Your task to perform on an android device: What's the weather going to be this weekend? Image 0: 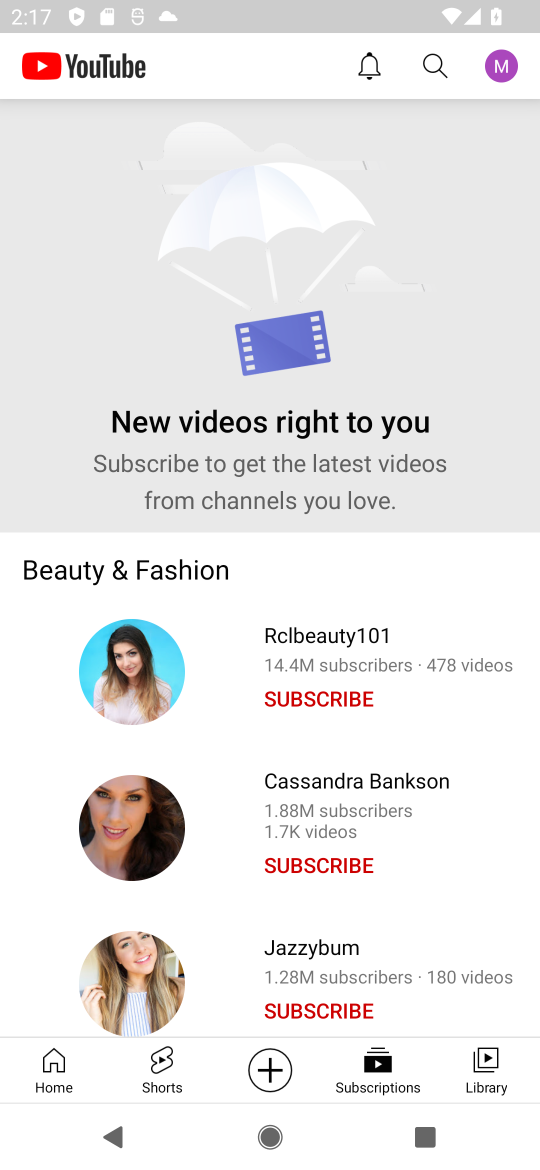
Step 0: press home button
Your task to perform on an android device: What's the weather going to be this weekend? Image 1: 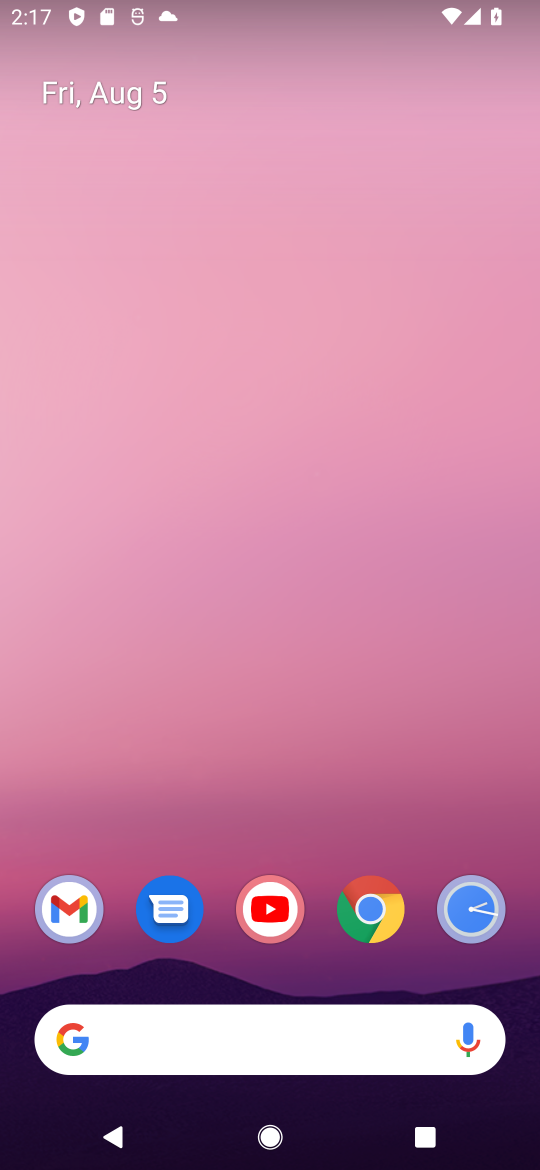
Step 1: click (328, 1018)
Your task to perform on an android device: What's the weather going to be this weekend? Image 2: 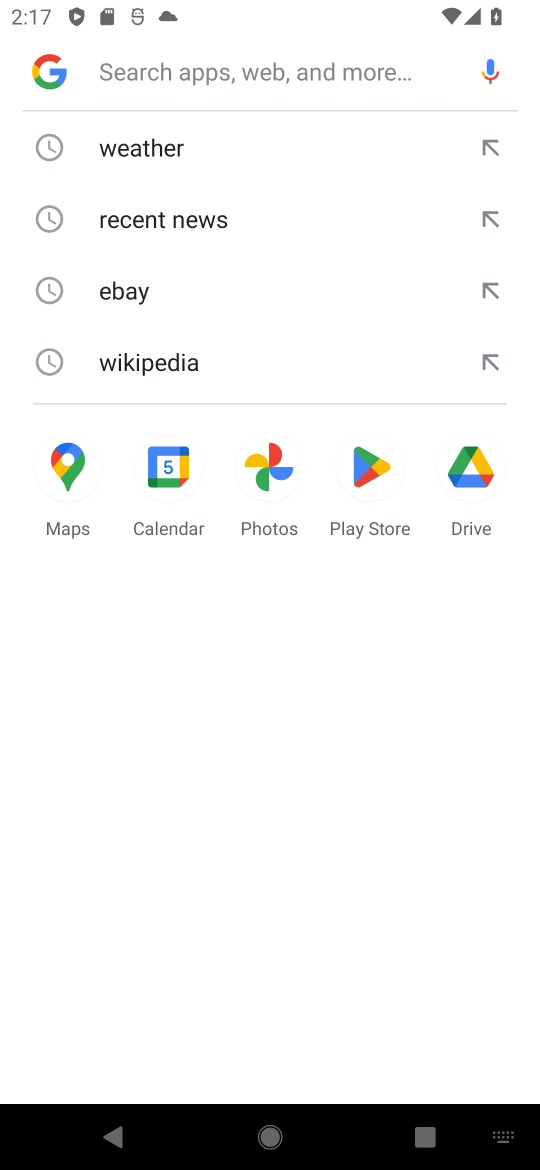
Step 2: click (275, 136)
Your task to perform on an android device: What's the weather going to be this weekend? Image 3: 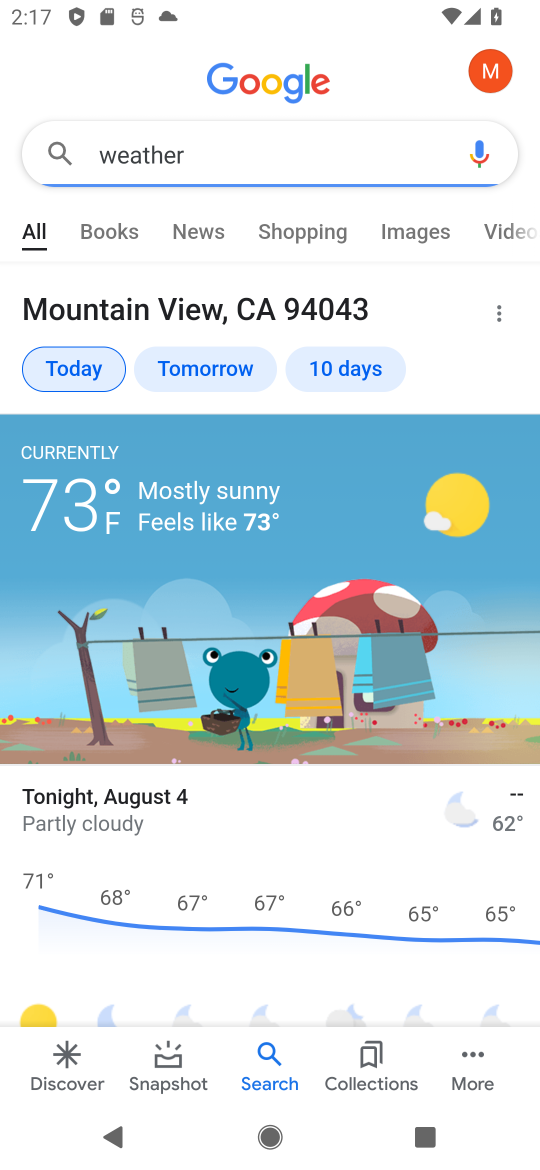
Step 3: task complete